Your task to perform on an android device: open wifi settings Image 0: 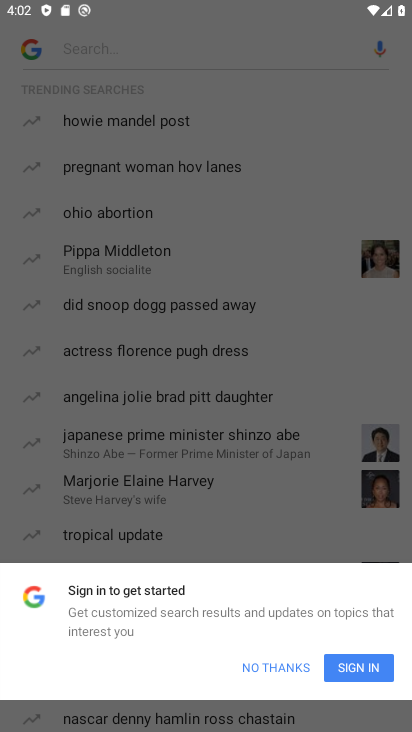
Step 0: press home button
Your task to perform on an android device: open wifi settings Image 1: 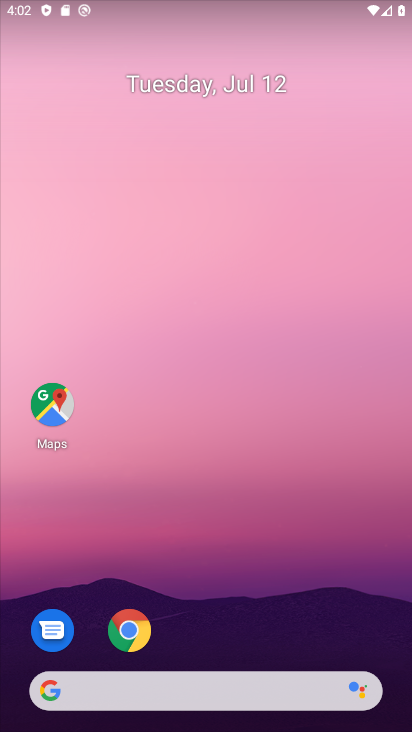
Step 1: drag from (291, 550) to (228, 54)
Your task to perform on an android device: open wifi settings Image 2: 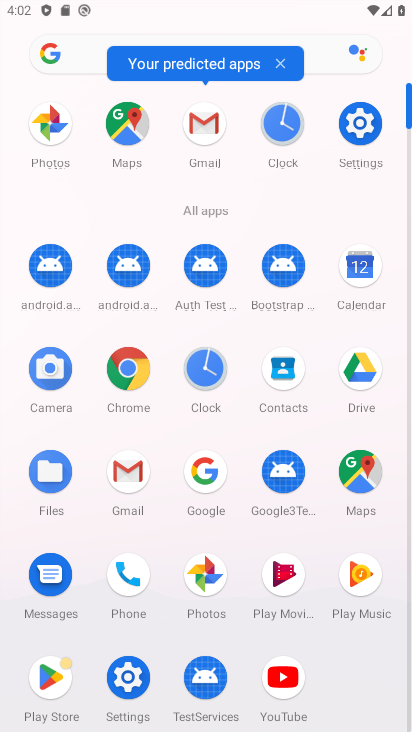
Step 2: click (371, 118)
Your task to perform on an android device: open wifi settings Image 3: 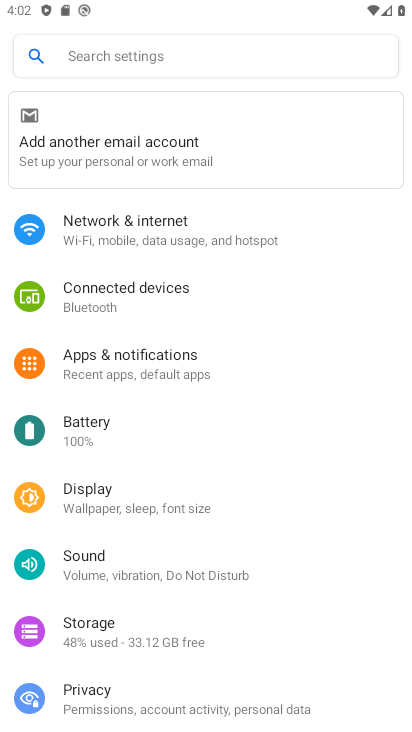
Step 3: click (159, 131)
Your task to perform on an android device: open wifi settings Image 4: 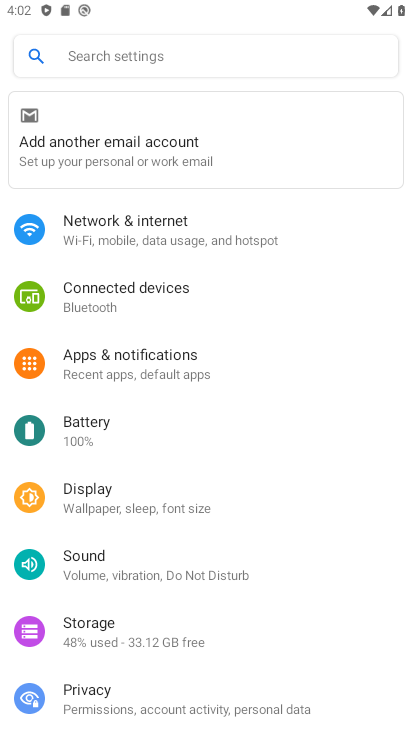
Step 4: click (183, 255)
Your task to perform on an android device: open wifi settings Image 5: 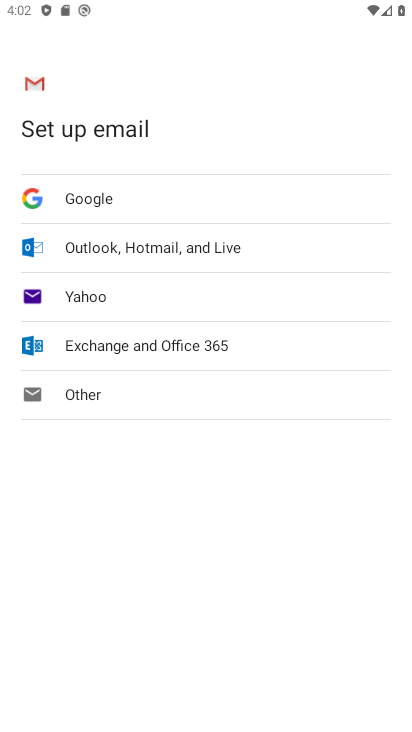
Step 5: press back button
Your task to perform on an android device: open wifi settings Image 6: 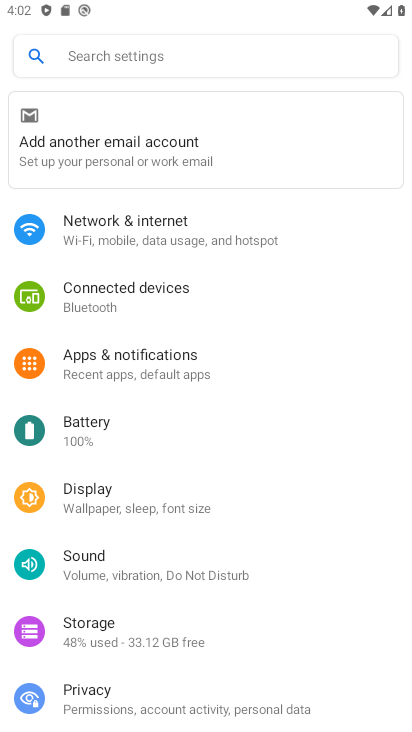
Step 6: click (149, 232)
Your task to perform on an android device: open wifi settings Image 7: 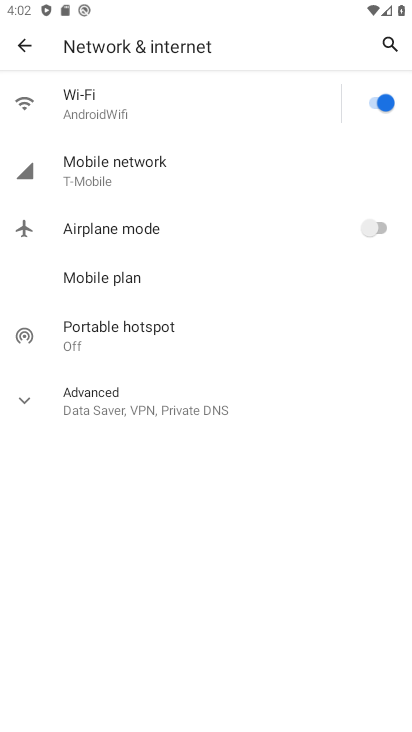
Step 7: click (185, 103)
Your task to perform on an android device: open wifi settings Image 8: 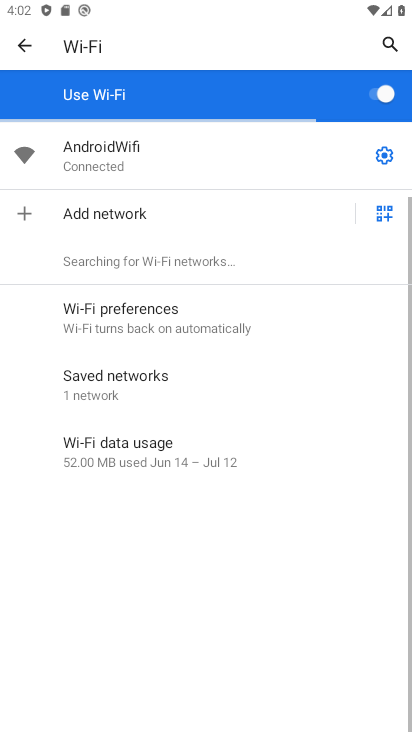
Step 8: click (385, 158)
Your task to perform on an android device: open wifi settings Image 9: 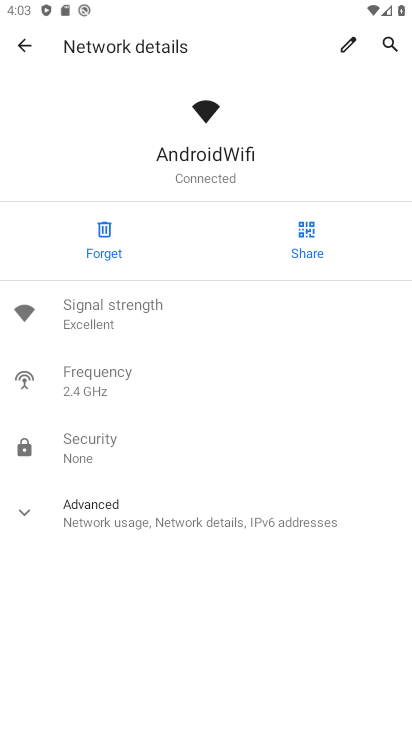
Step 9: task complete